Your task to perform on an android device: Search for pizza restaurants on Maps Image 0: 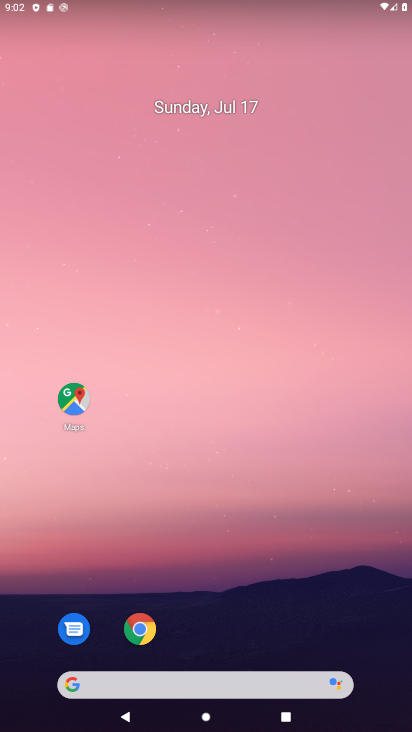
Step 0: click (71, 396)
Your task to perform on an android device: Search for pizza restaurants on Maps Image 1: 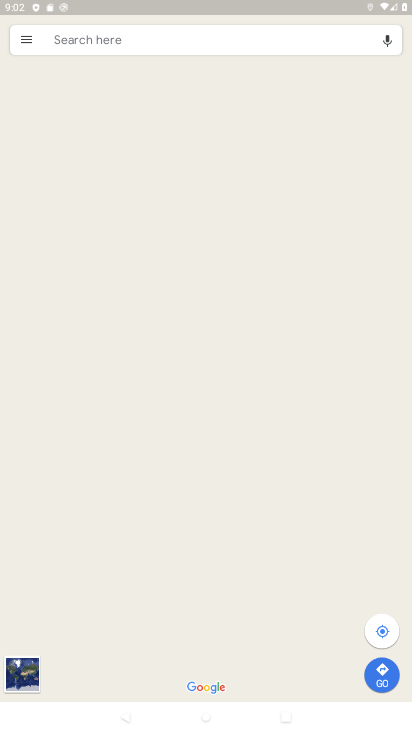
Step 1: click (217, 34)
Your task to perform on an android device: Search for pizza restaurants on Maps Image 2: 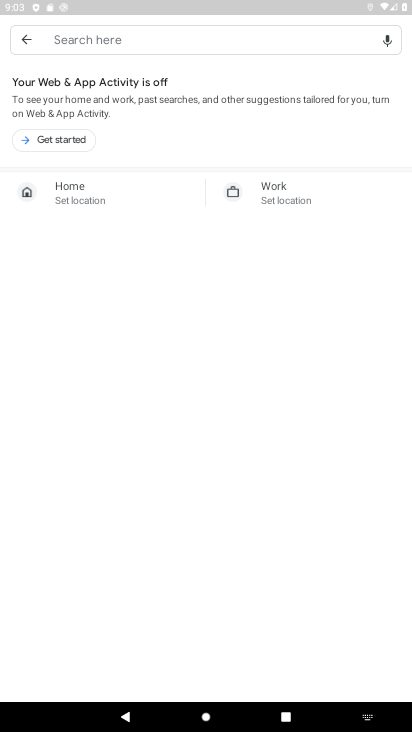
Step 2: type "Pizza restaurants"
Your task to perform on an android device: Search for pizza restaurants on Maps Image 3: 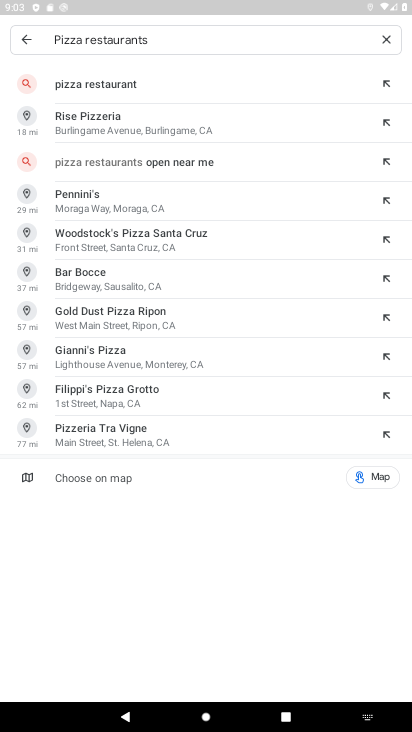
Step 3: click (167, 64)
Your task to perform on an android device: Search for pizza restaurants on Maps Image 4: 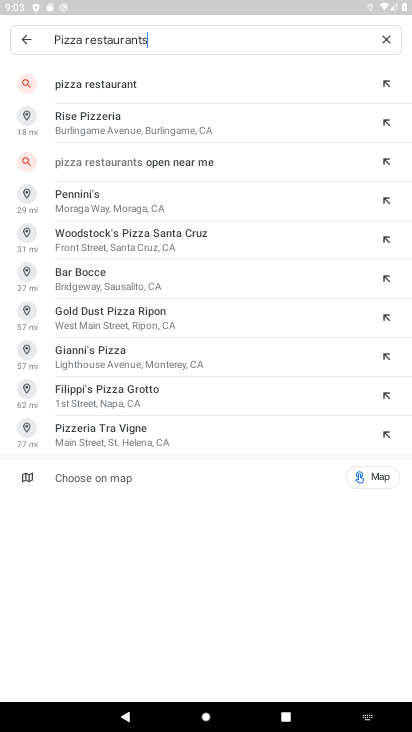
Step 4: click (137, 87)
Your task to perform on an android device: Search for pizza restaurants on Maps Image 5: 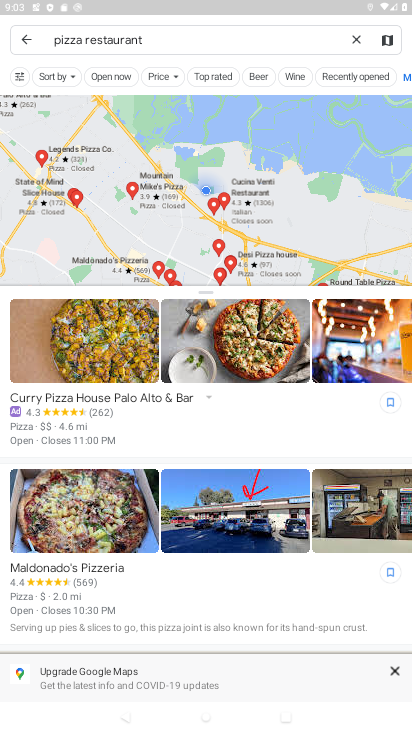
Step 5: task complete